Your task to perform on an android device: turn off improve location accuracy Image 0: 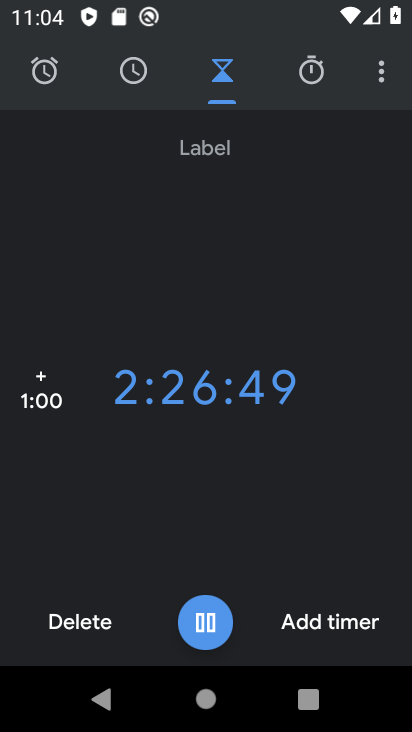
Step 0: press home button
Your task to perform on an android device: turn off improve location accuracy Image 1: 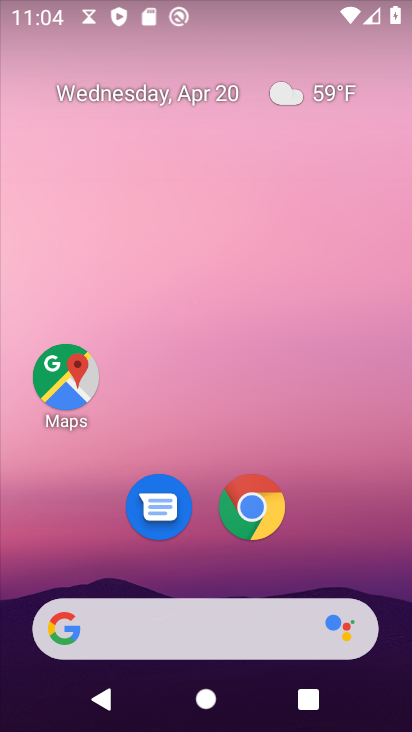
Step 1: drag from (244, 650) to (385, 94)
Your task to perform on an android device: turn off improve location accuracy Image 2: 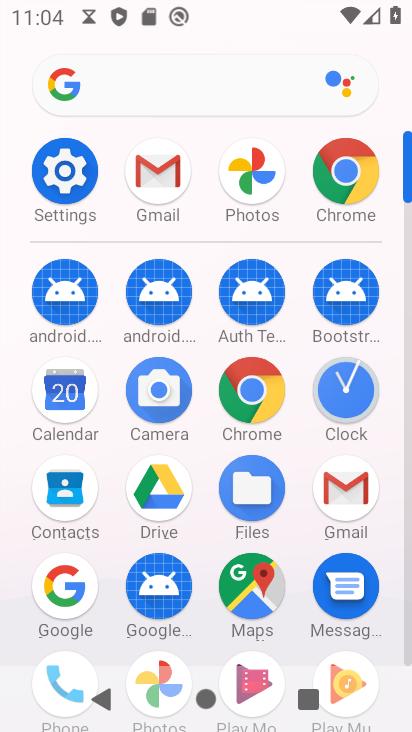
Step 2: click (66, 187)
Your task to perform on an android device: turn off improve location accuracy Image 3: 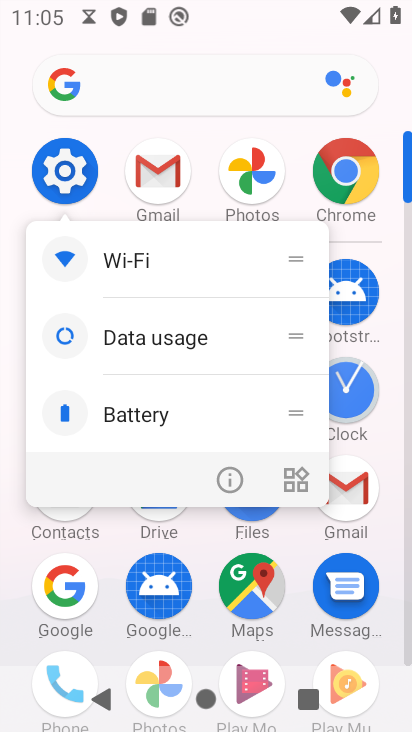
Step 3: click (66, 187)
Your task to perform on an android device: turn off improve location accuracy Image 4: 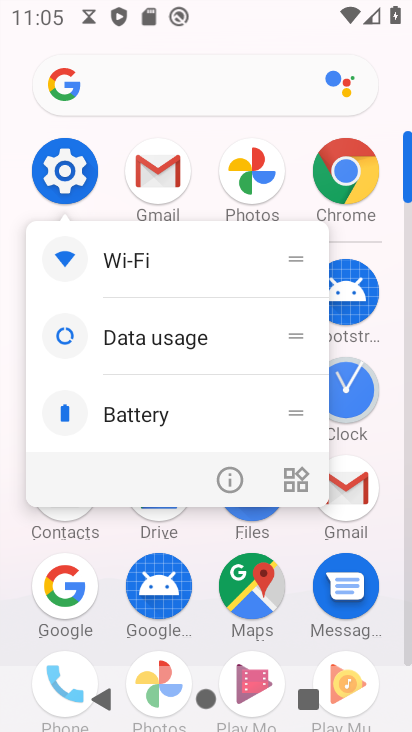
Step 4: click (66, 187)
Your task to perform on an android device: turn off improve location accuracy Image 5: 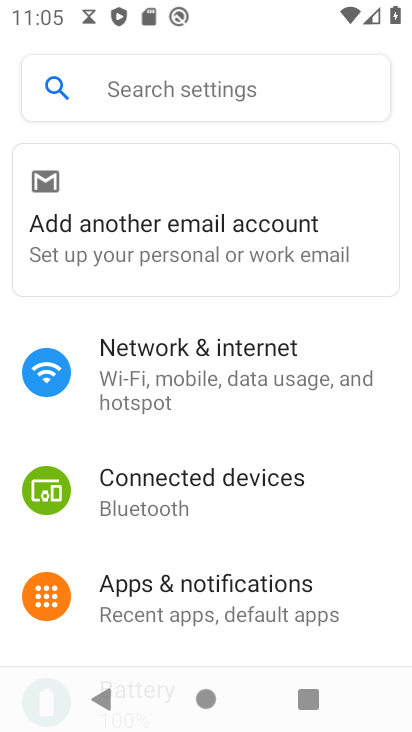
Step 5: click (146, 97)
Your task to perform on an android device: turn off improve location accuracy Image 6: 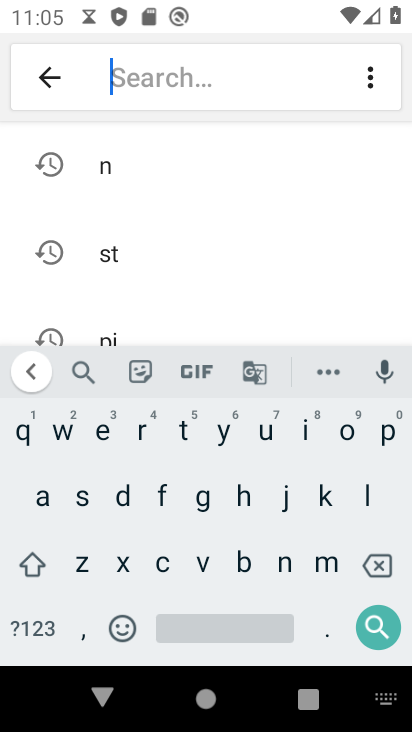
Step 6: click (367, 496)
Your task to perform on an android device: turn off improve location accuracy Image 7: 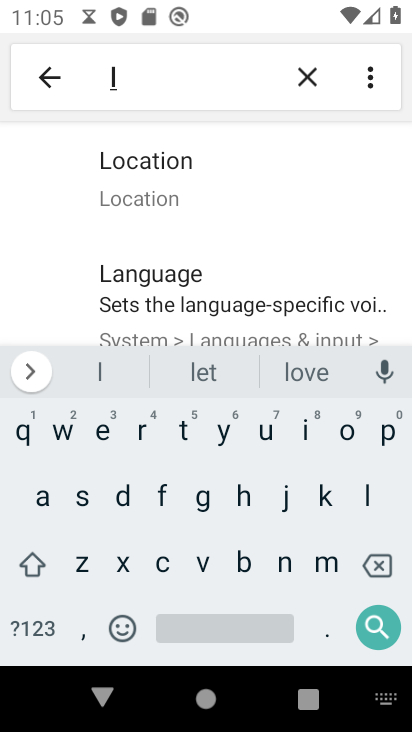
Step 7: click (351, 430)
Your task to perform on an android device: turn off improve location accuracy Image 8: 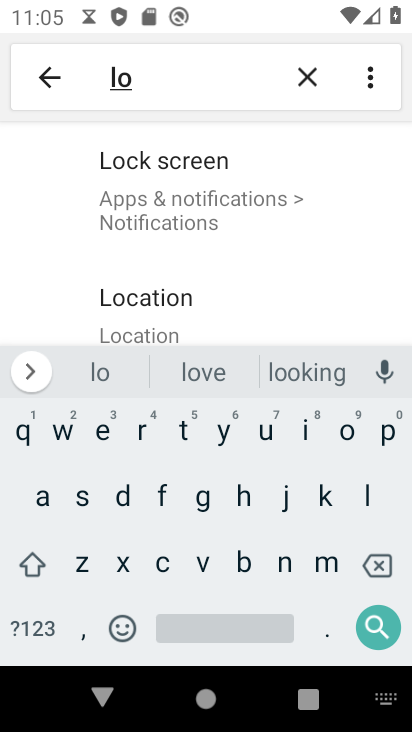
Step 8: click (162, 562)
Your task to perform on an android device: turn off improve location accuracy Image 9: 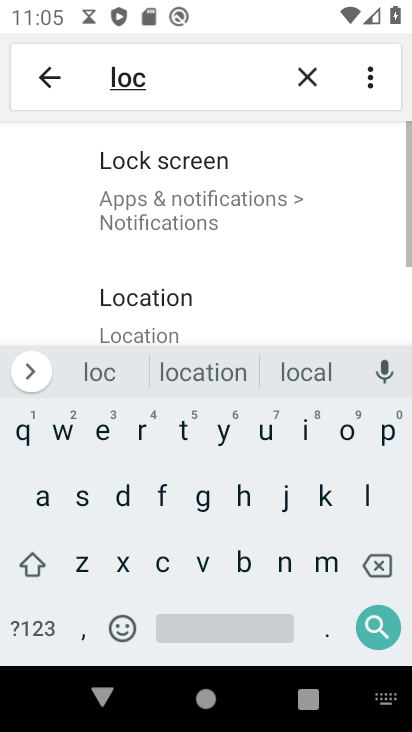
Step 9: click (42, 496)
Your task to perform on an android device: turn off improve location accuracy Image 10: 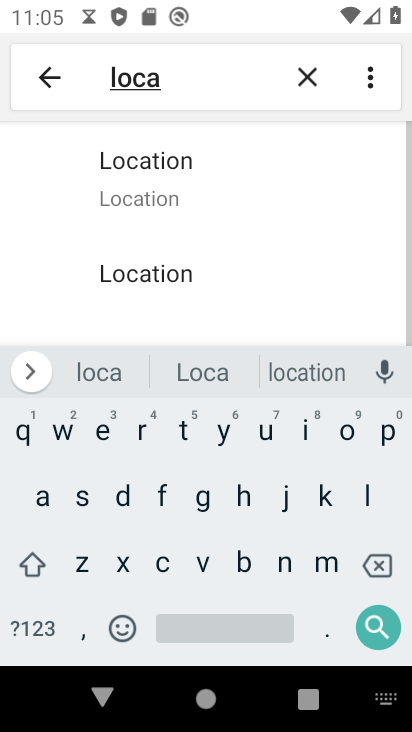
Step 10: click (209, 189)
Your task to perform on an android device: turn off improve location accuracy Image 11: 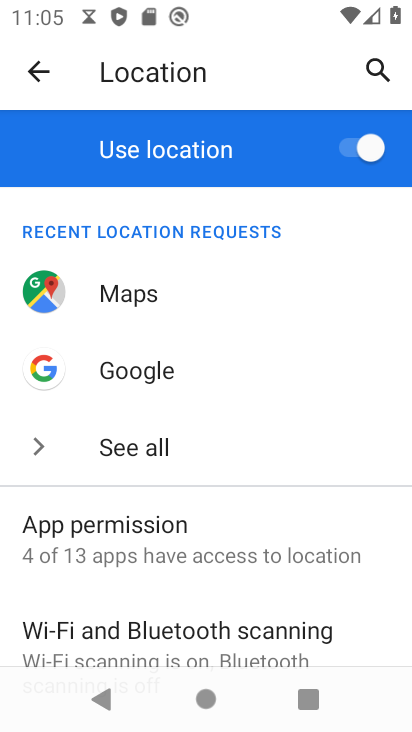
Step 11: drag from (100, 548) to (185, 347)
Your task to perform on an android device: turn off improve location accuracy Image 12: 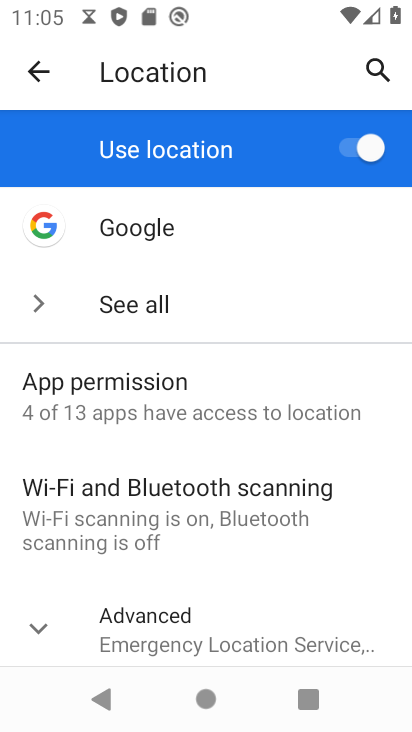
Step 12: click (131, 613)
Your task to perform on an android device: turn off improve location accuracy Image 13: 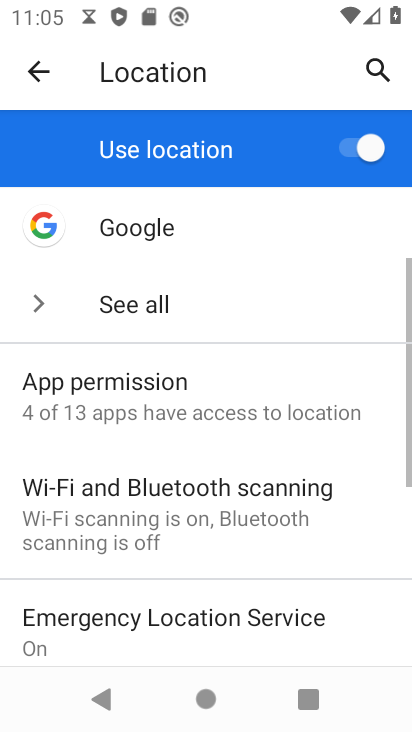
Step 13: drag from (191, 524) to (237, 302)
Your task to perform on an android device: turn off improve location accuracy Image 14: 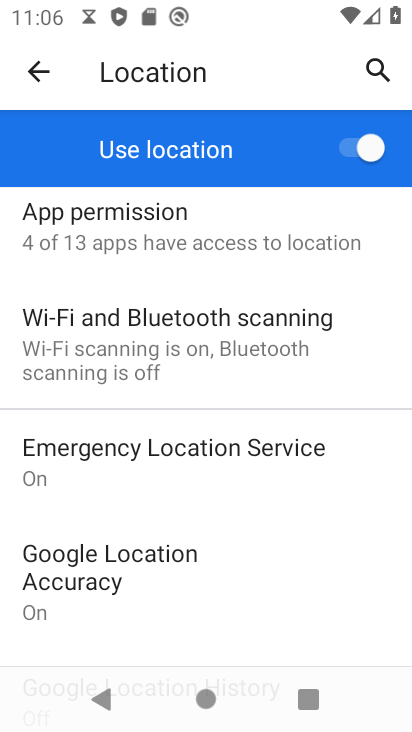
Step 14: click (129, 569)
Your task to perform on an android device: turn off improve location accuracy Image 15: 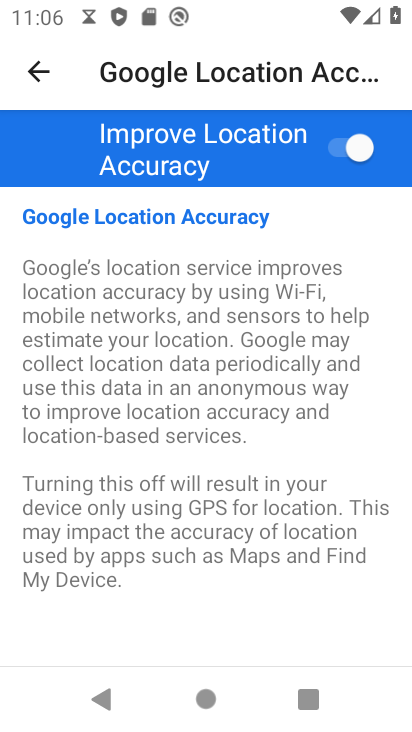
Step 15: click (355, 157)
Your task to perform on an android device: turn off improve location accuracy Image 16: 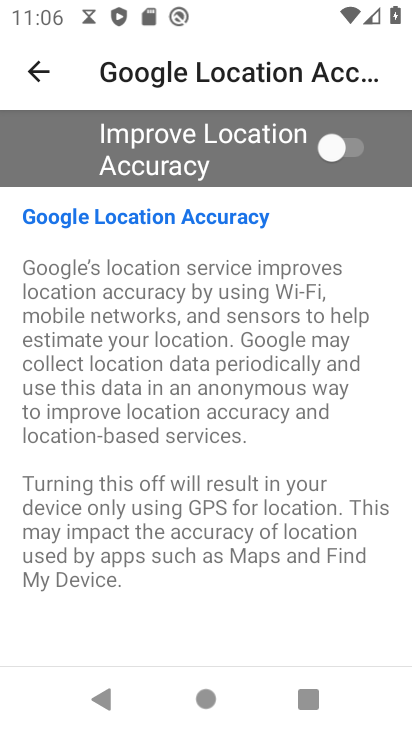
Step 16: task complete